Your task to perform on an android device: toggle sleep mode Image 0: 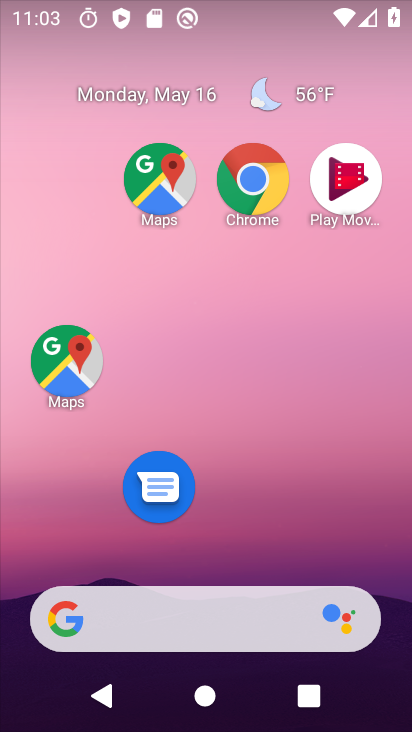
Step 0: click (180, 9)
Your task to perform on an android device: toggle sleep mode Image 1: 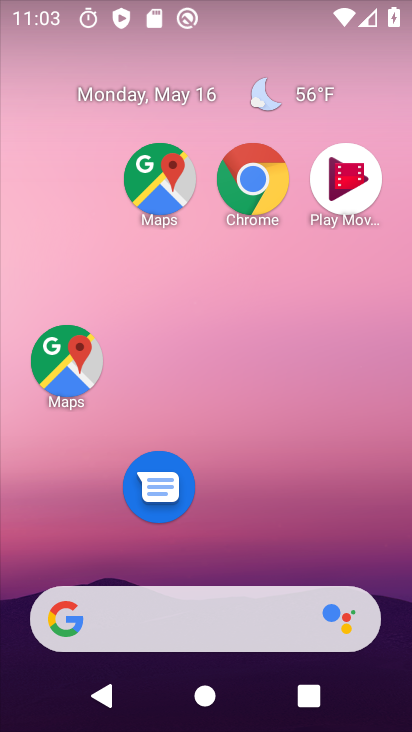
Step 1: drag from (223, 546) to (210, 3)
Your task to perform on an android device: toggle sleep mode Image 2: 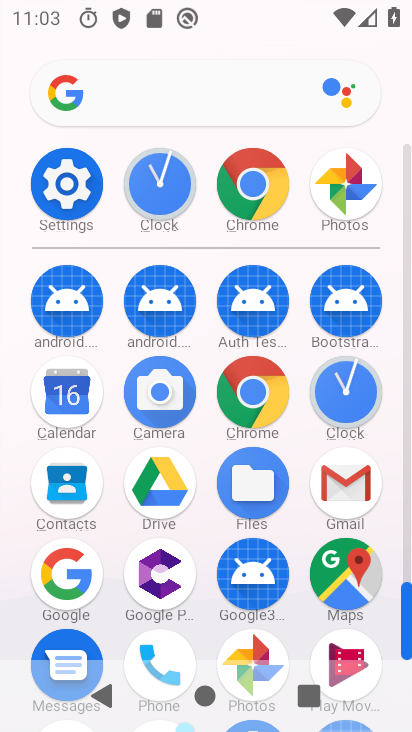
Step 2: click (68, 190)
Your task to perform on an android device: toggle sleep mode Image 3: 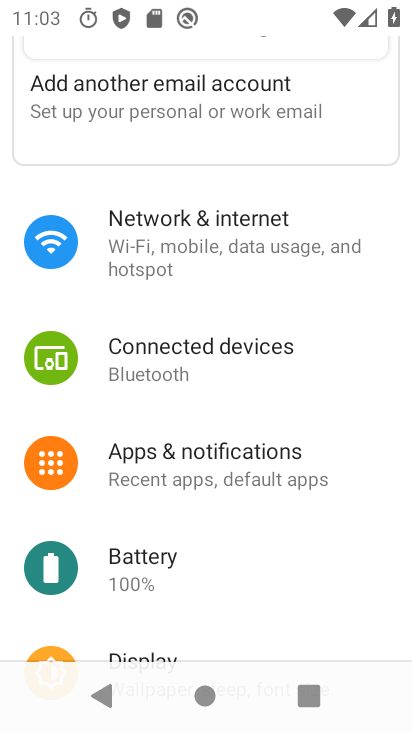
Step 3: task complete